Your task to perform on an android device: Toggle the flashlight Image 0: 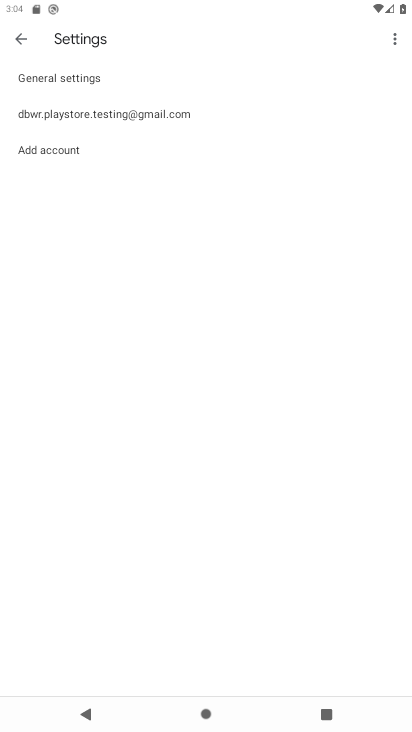
Step 0: drag from (267, 6) to (247, 707)
Your task to perform on an android device: Toggle the flashlight Image 1: 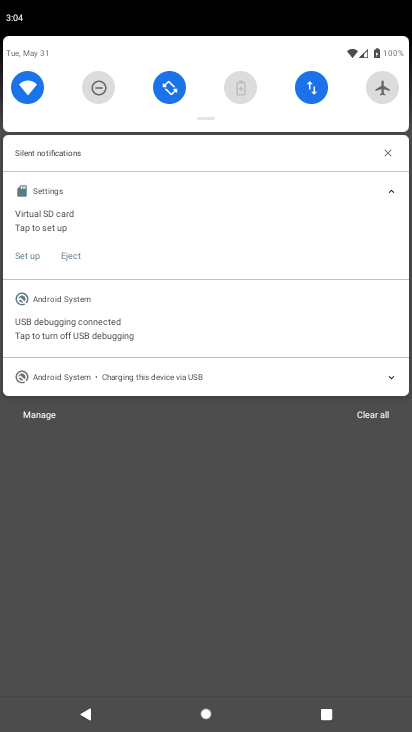
Step 1: drag from (200, 101) to (198, 421)
Your task to perform on an android device: Toggle the flashlight Image 2: 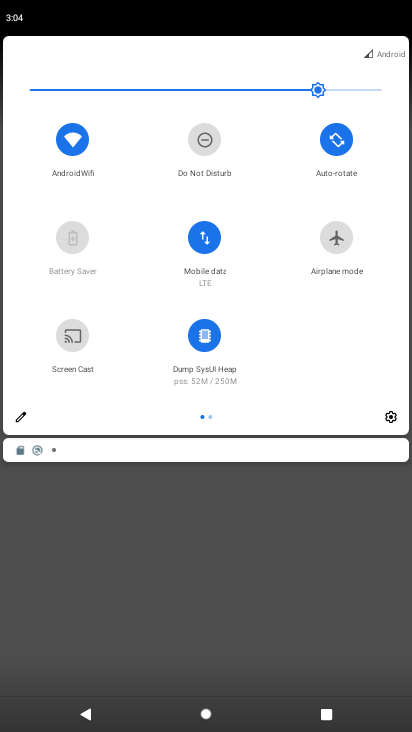
Step 2: click (14, 414)
Your task to perform on an android device: Toggle the flashlight Image 3: 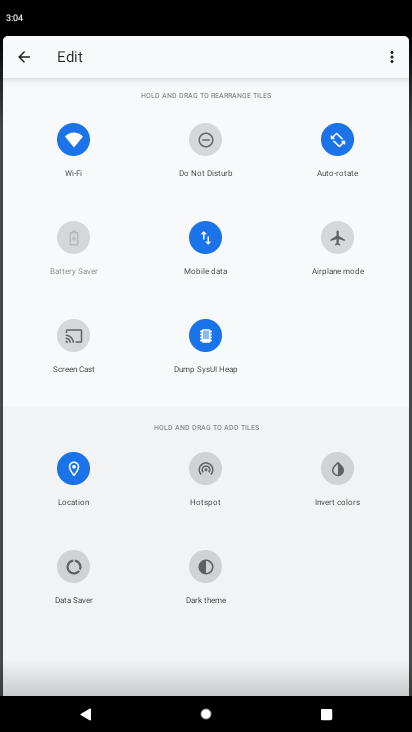
Step 3: task complete